Your task to perform on an android device: open chrome and create a bookmark for the current page Image 0: 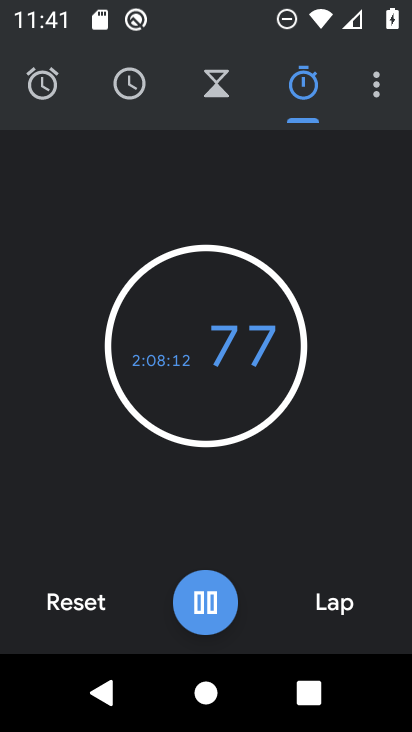
Step 0: press home button
Your task to perform on an android device: open chrome and create a bookmark for the current page Image 1: 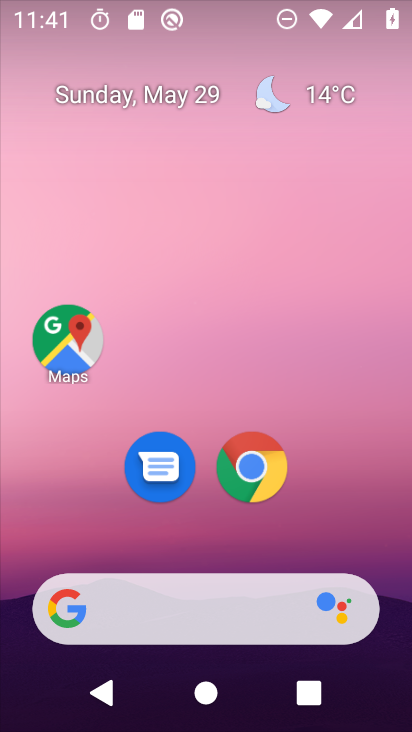
Step 1: click (238, 473)
Your task to perform on an android device: open chrome and create a bookmark for the current page Image 2: 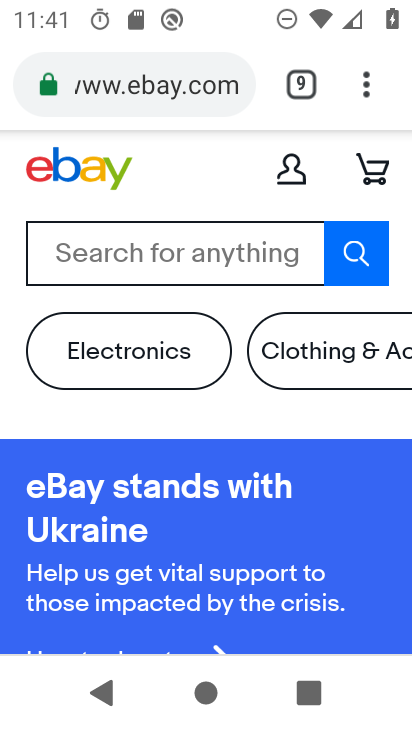
Step 2: click (358, 79)
Your task to perform on an android device: open chrome and create a bookmark for the current page Image 3: 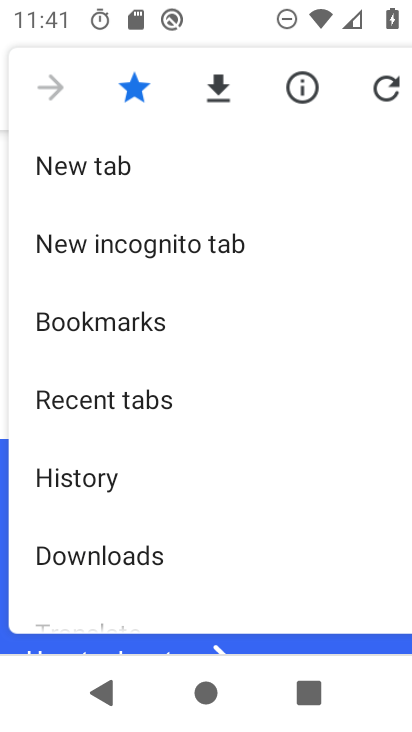
Step 3: click (44, 88)
Your task to perform on an android device: open chrome and create a bookmark for the current page Image 4: 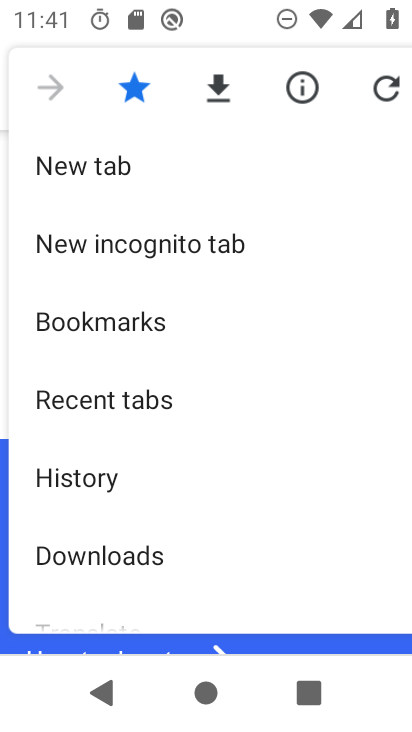
Step 4: click (147, 90)
Your task to perform on an android device: open chrome and create a bookmark for the current page Image 5: 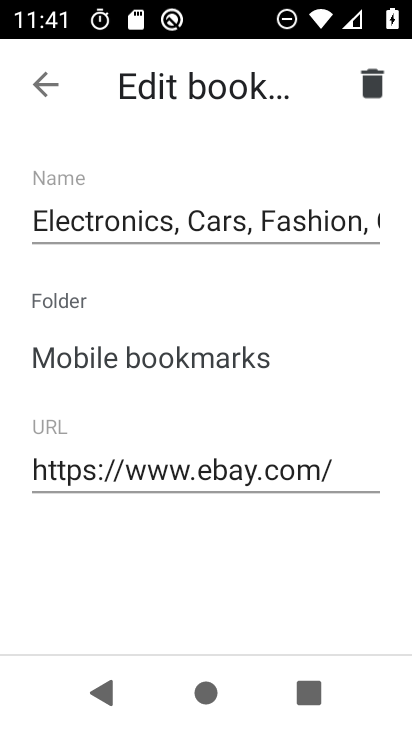
Step 5: click (130, 88)
Your task to perform on an android device: open chrome and create a bookmark for the current page Image 6: 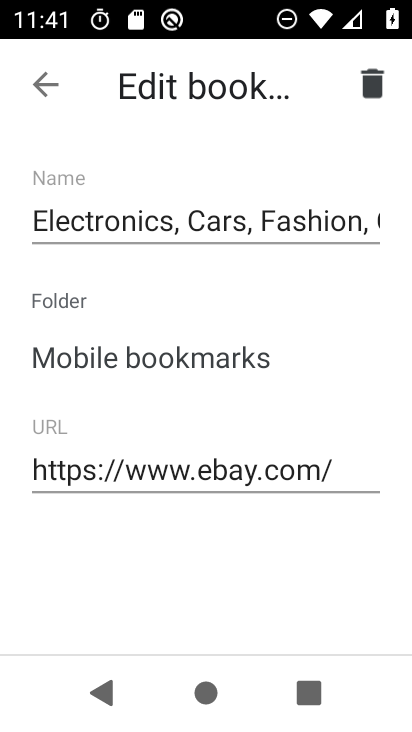
Step 6: task complete